Your task to perform on an android device: Turn off the flashlight Image 0: 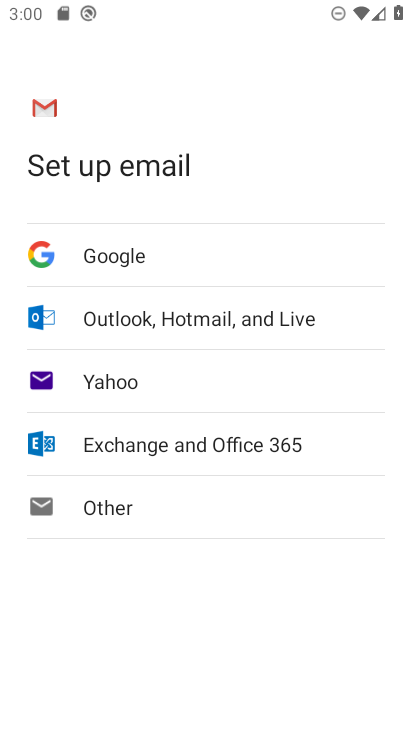
Step 0: press home button
Your task to perform on an android device: Turn off the flashlight Image 1: 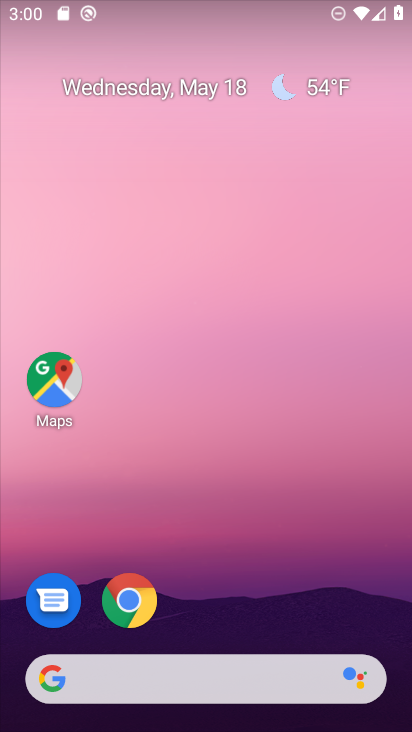
Step 1: drag from (197, 615) to (244, 49)
Your task to perform on an android device: Turn off the flashlight Image 2: 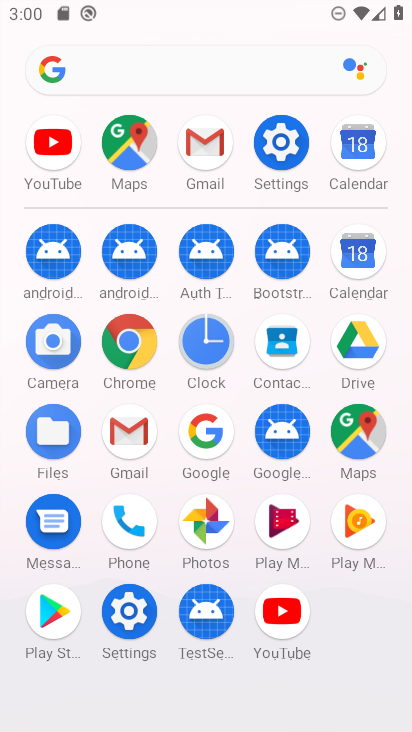
Step 2: click (285, 150)
Your task to perform on an android device: Turn off the flashlight Image 3: 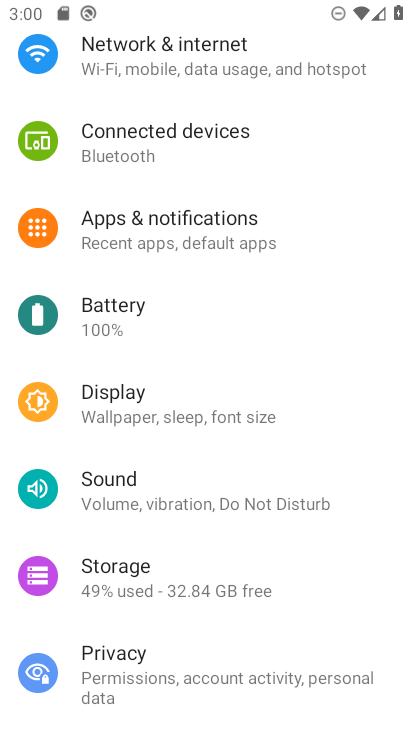
Step 3: drag from (192, 178) to (180, 403)
Your task to perform on an android device: Turn off the flashlight Image 4: 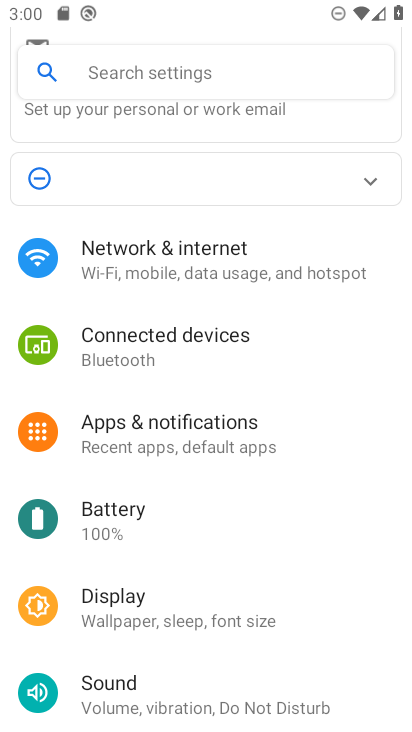
Step 4: click (189, 76)
Your task to perform on an android device: Turn off the flashlight Image 5: 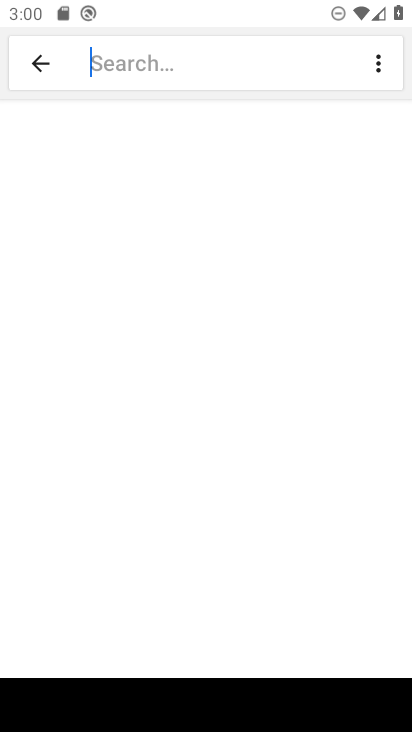
Step 5: type "flashlight"
Your task to perform on an android device: Turn off the flashlight Image 6: 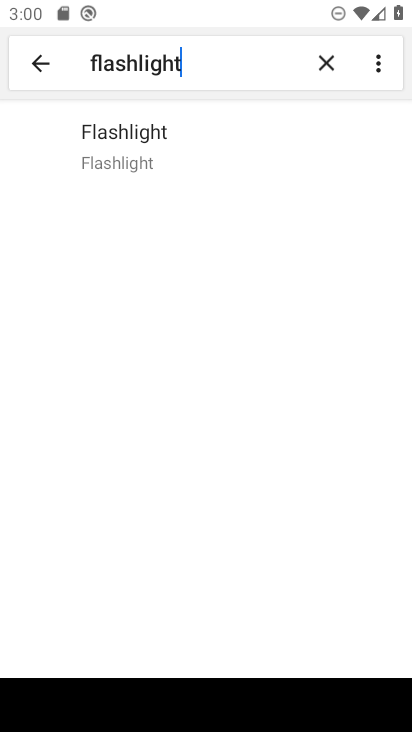
Step 6: click (187, 166)
Your task to perform on an android device: Turn off the flashlight Image 7: 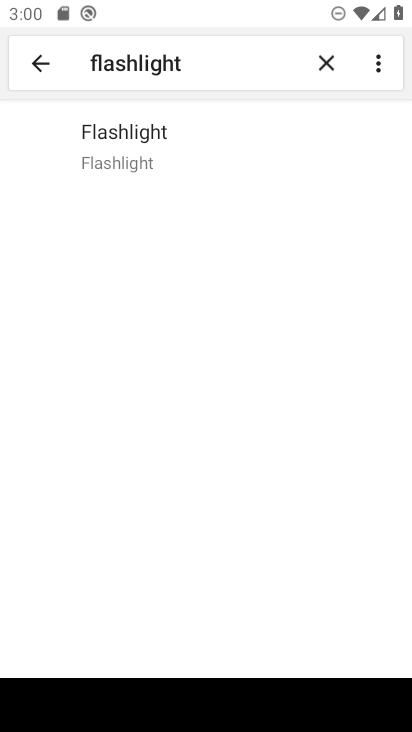
Step 7: click (175, 153)
Your task to perform on an android device: Turn off the flashlight Image 8: 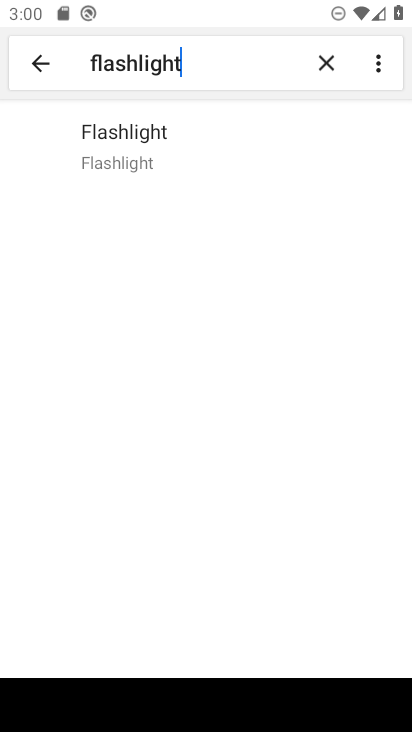
Step 8: click (175, 153)
Your task to perform on an android device: Turn off the flashlight Image 9: 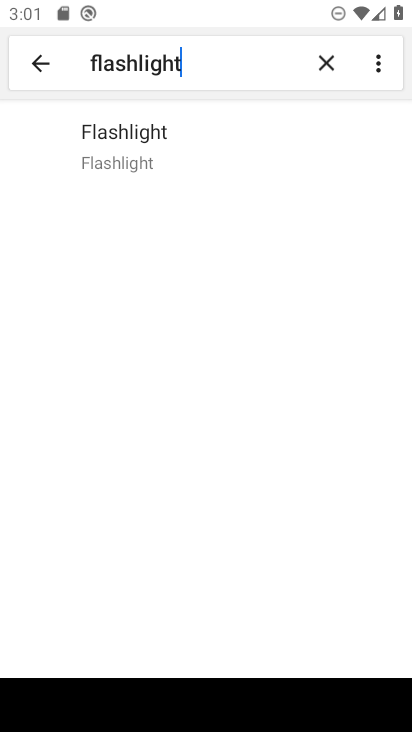
Step 9: task complete